Your task to perform on an android device: Go to display settings Image 0: 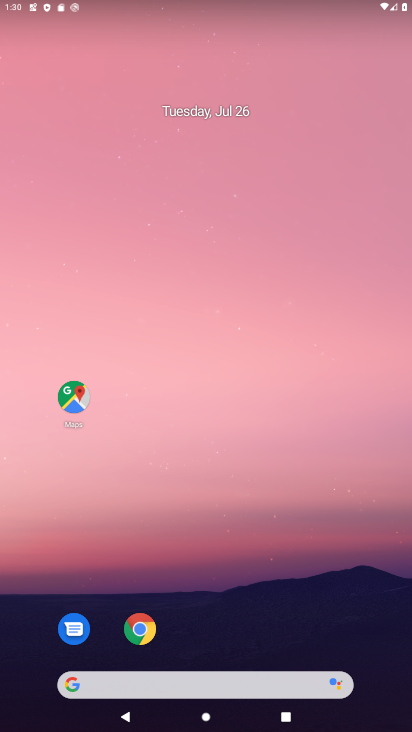
Step 0: drag from (236, 595) to (237, 118)
Your task to perform on an android device: Go to display settings Image 1: 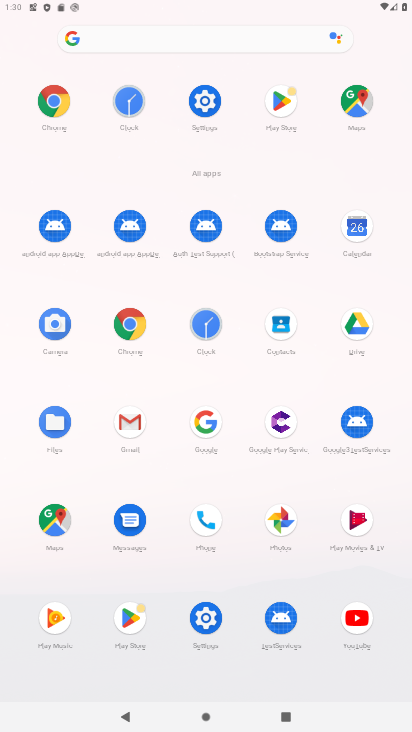
Step 1: click (204, 619)
Your task to perform on an android device: Go to display settings Image 2: 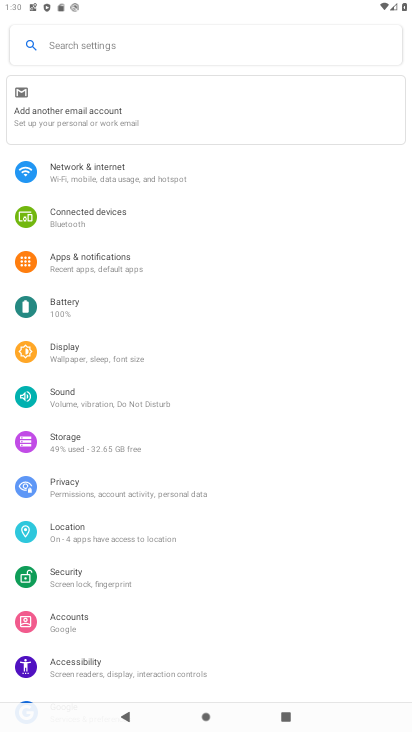
Step 2: click (78, 352)
Your task to perform on an android device: Go to display settings Image 3: 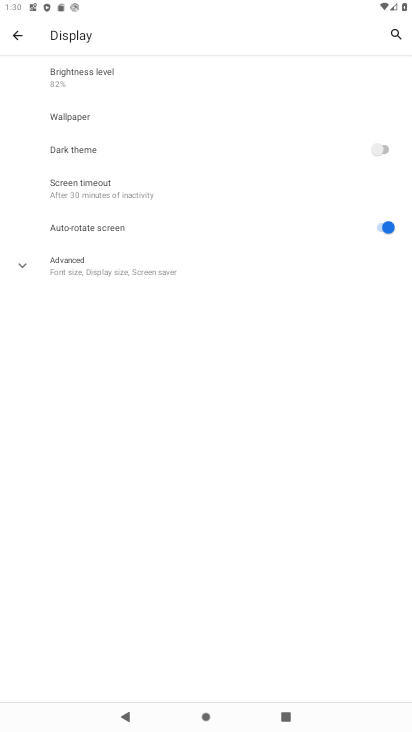
Step 3: task complete